Your task to perform on an android device: Check the news Image 0: 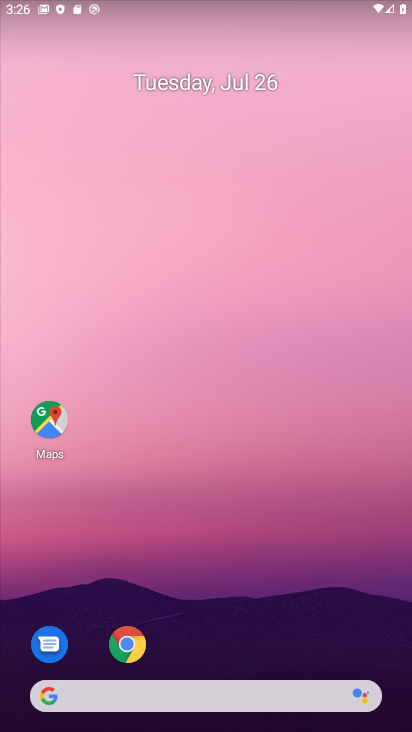
Step 0: drag from (0, 314) to (395, 323)
Your task to perform on an android device: Check the news Image 1: 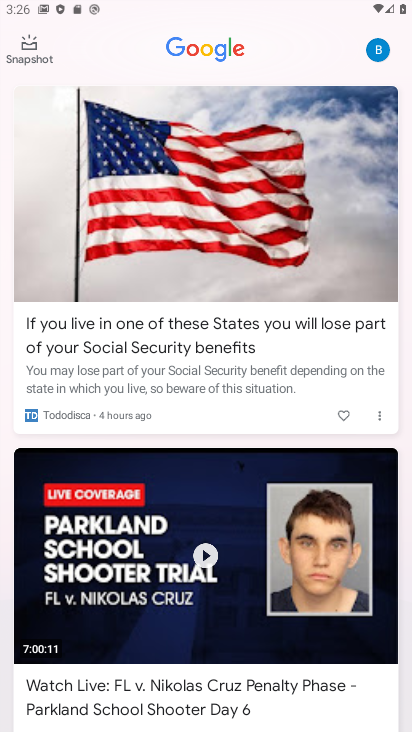
Step 1: task complete